Your task to perform on an android device: Search for vegetarian restaurants on Maps Image 0: 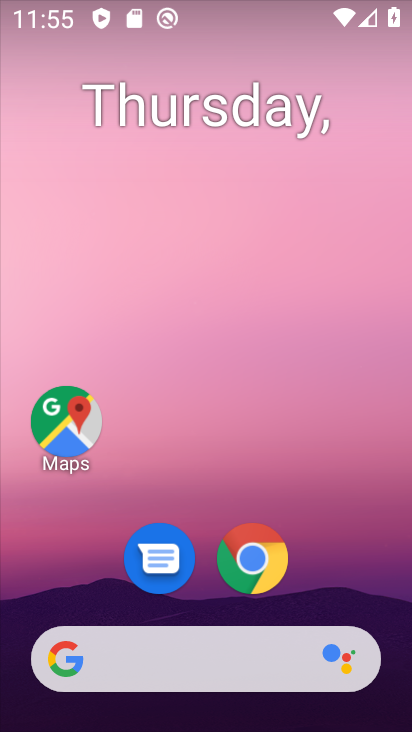
Step 0: drag from (385, 631) to (305, 125)
Your task to perform on an android device: Search for vegetarian restaurants on Maps Image 1: 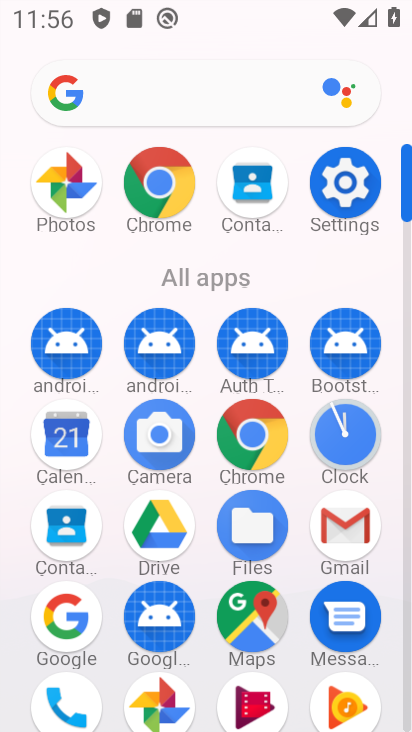
Step 1: click (267, 631)
Your task to perform on an android device: Search for vegetarian restaurants on Maps Image 2: 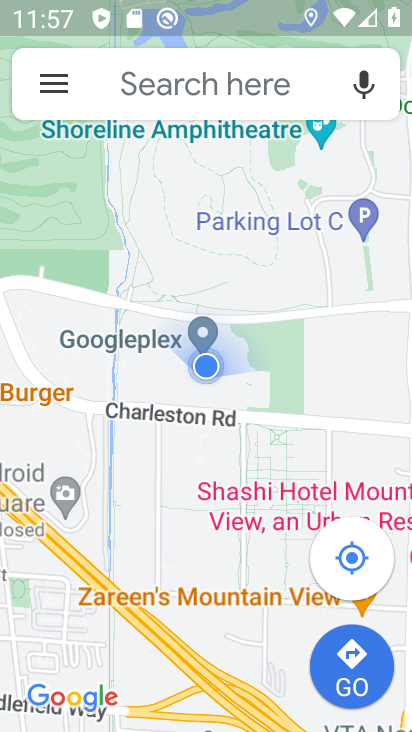
Step 2: click (183, 76)
Your task to perform on an android device: Search for vegetarian restaurants on Maps Image 3: 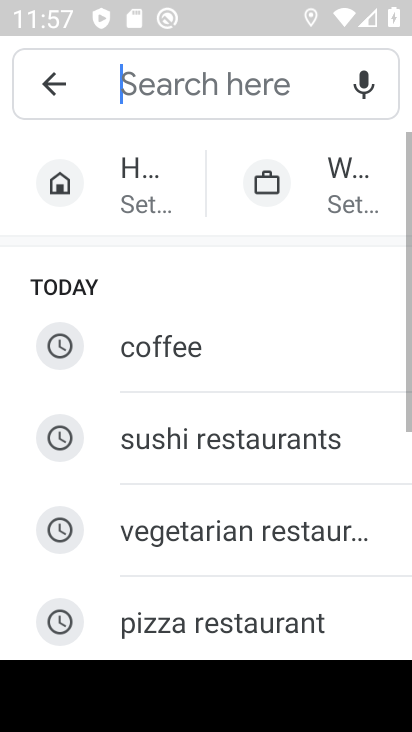
Step 3: click (215, 549)
Your task to perform on an android device: Search for vegetarian restaurants on Maps Image 4: 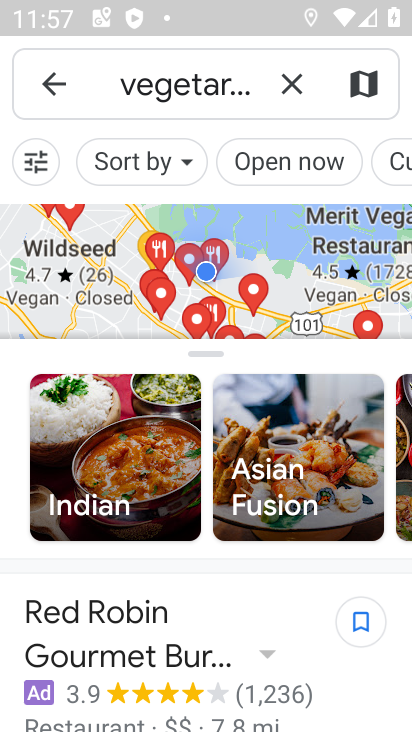
Step 4: task complete